Your task to perform on an android device: How big is a tiger? Image 0: 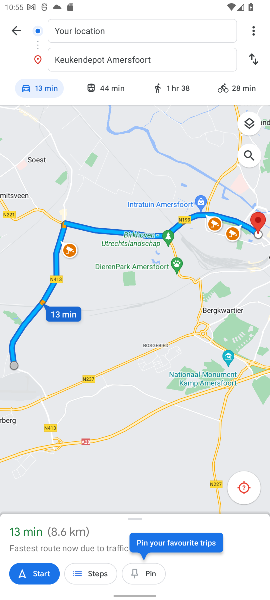
Step 0: press home button
Your task to perform on an android device: How big is a tiger? Image 1: 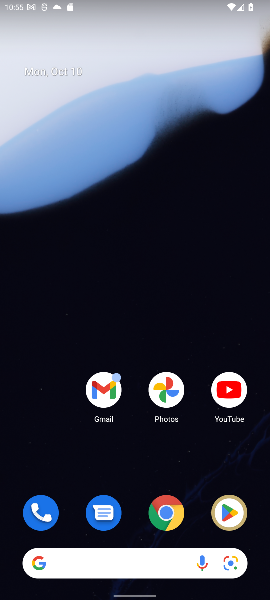
Step 1: drag from (128, 529) to (120, 19)
Your task to perform on an android device: How big is a tiger? Image 2: 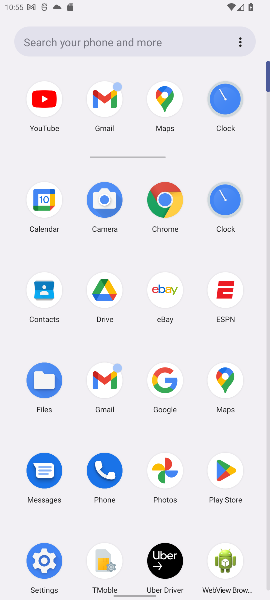
Step 2: click (150, 48)
Your task to perform on an android device: How big is a tiger? Image 3: 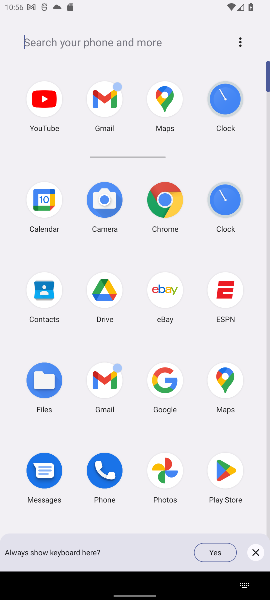
Step 3: type "How big is a tiger?"
Your task to perform on an android device: How big is a tiger? Image 4: 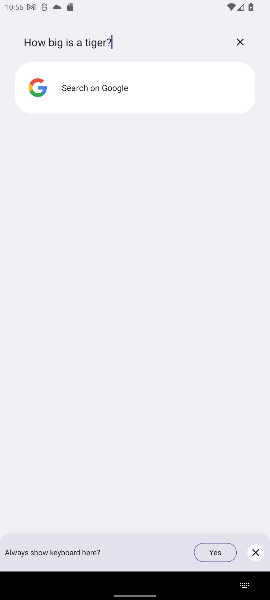
Step 4: click (101, 84)
Your task to perform on an android device: How big is a tiger? Image 5: 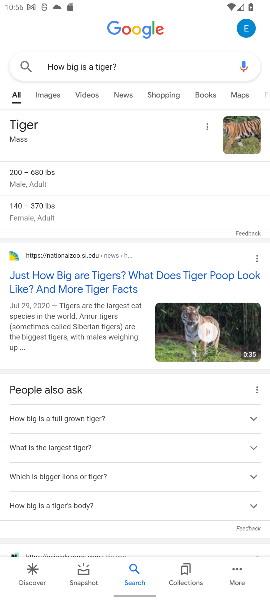
Step 5: task complete